Your task to perform on an android device: turn off translation in the chrome app Image 0: 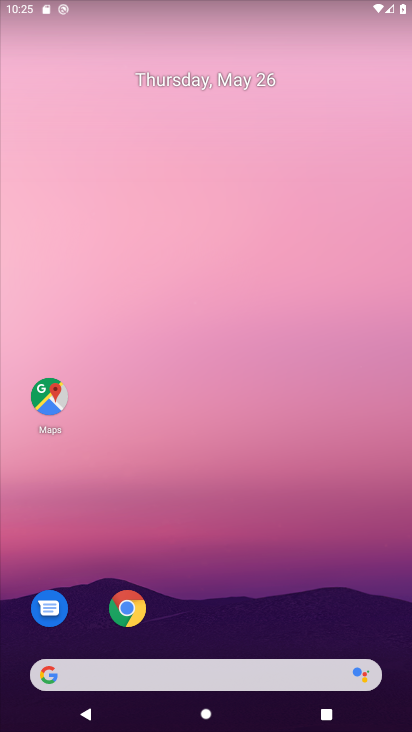
Step 0: click (133, 600)
Your task to perform on an android device: turn off translation in the chrome app Image 1: 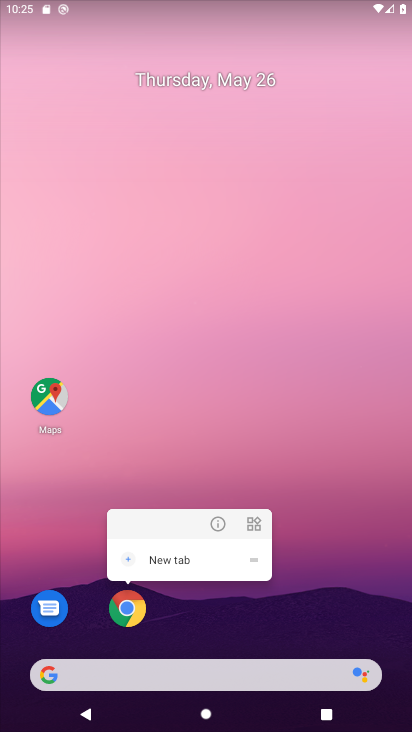
Step 1: click (131, 607)
Your task to perform on an android device: turn off translation in the chrome app Image 2: 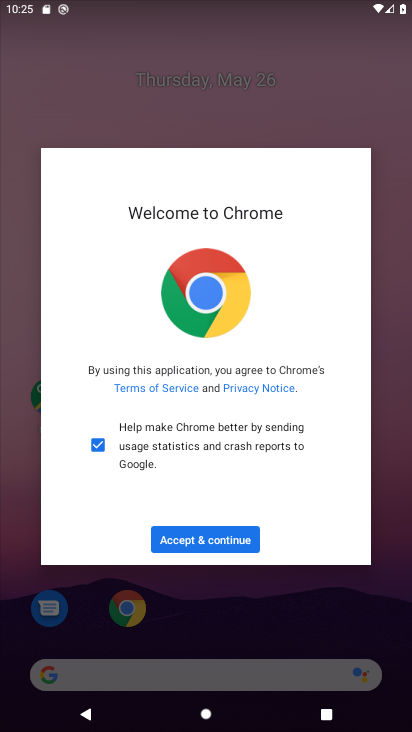
Step 2: click (237, 527)
Your task to perform on an android device: turn off translation in the chrome app Image 3: 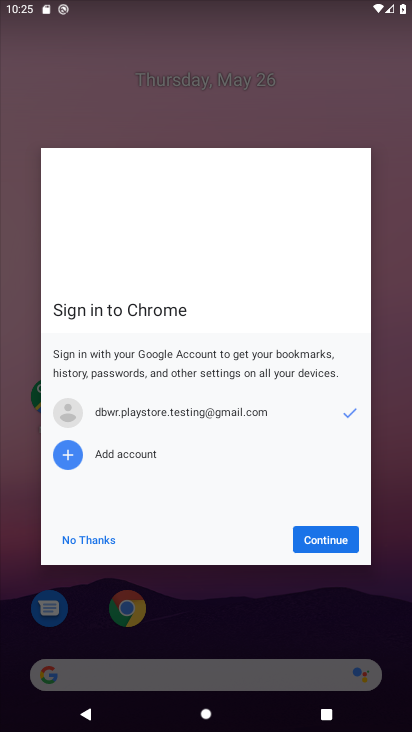
Step 3: click (308, 548)
Your task to perform on an android device: turn off translation in the chrome app Image 4: 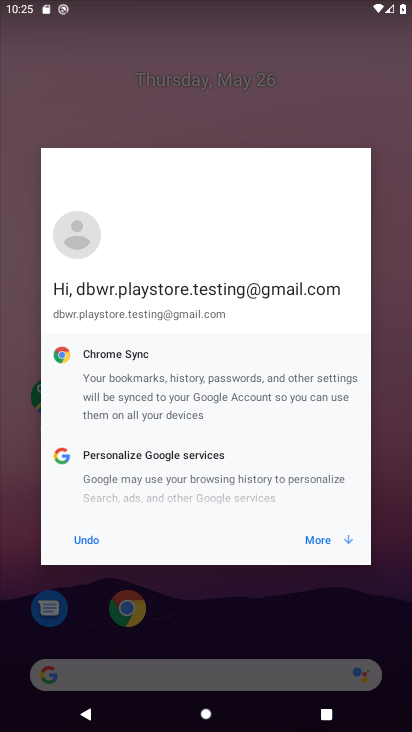
Step 4: click (316, 531)
Your task to perform on an android device: turn off translation in the chrome app Image 5: 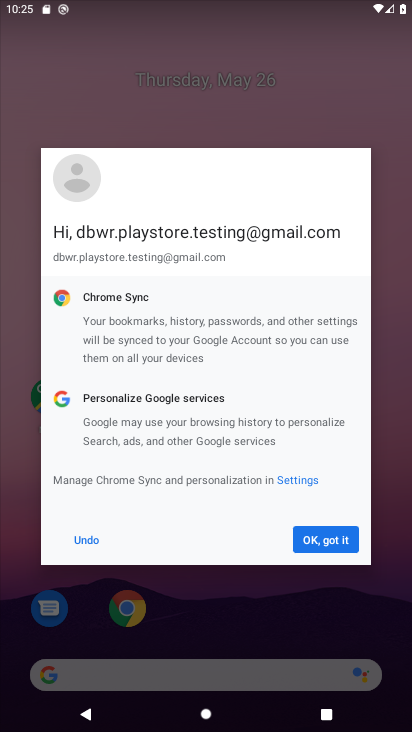
Step 5: click (316, 531)
Your task to perform on an android device: turn off translation in the chrome app Image 6: 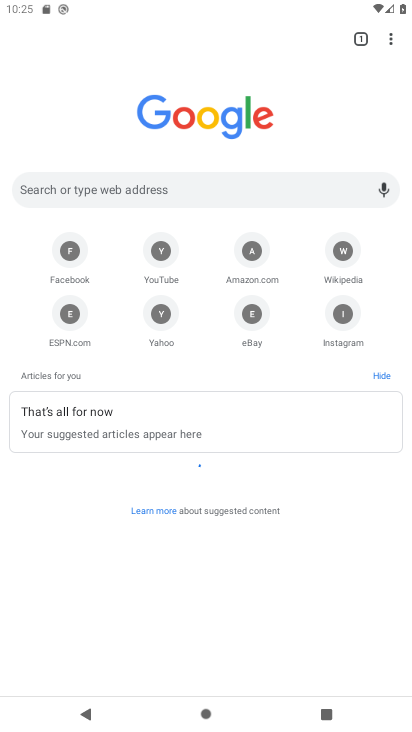
Step 6: click (389, 36)
Your task to perform on an android device: turn off translation in the chrome app Image 7: 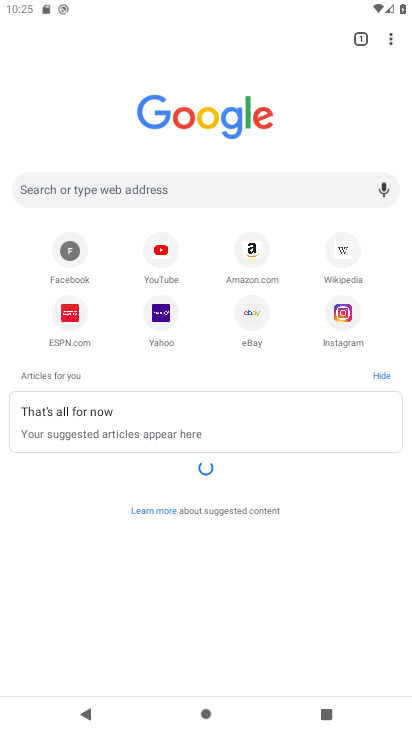
Step 7: click (392, 38)
Your task to perform on an android device: turn off translation in the chrome app Image 8: 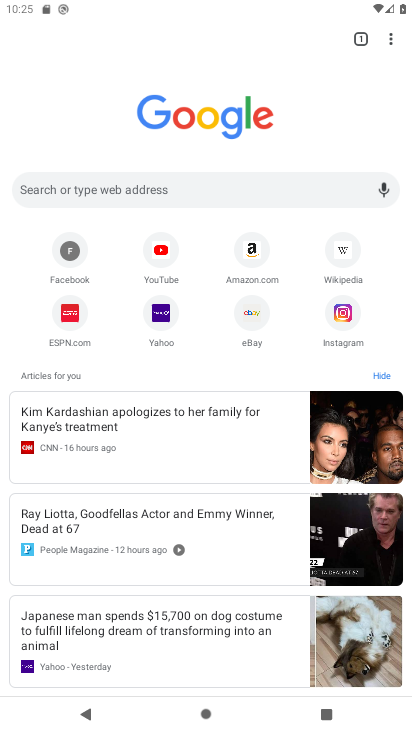
Step 8: click (392, 38)
Your task to perform on an android device: turn off translation in the chrome app Image 9: 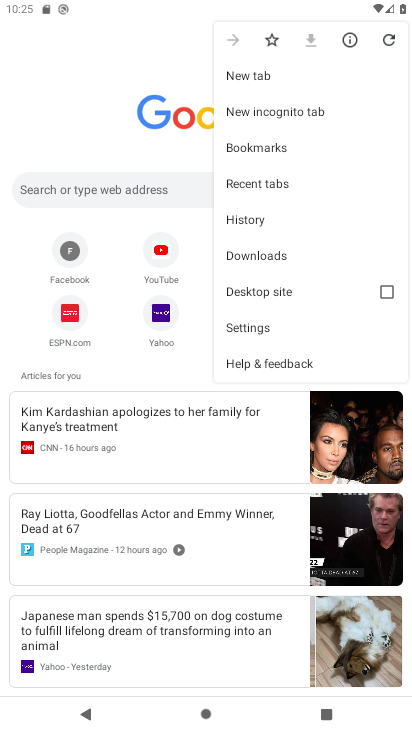
Step 9: click (246, 323)
Your task to perform on an android device: turn off translation in the chrome app Image 10: 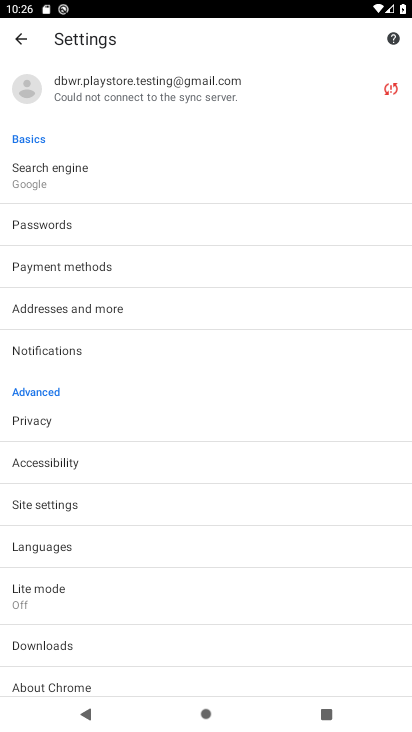
Step 10: click (78, 542)
Your task to perform on an android device: turn off translation in the chrome app Image 11: 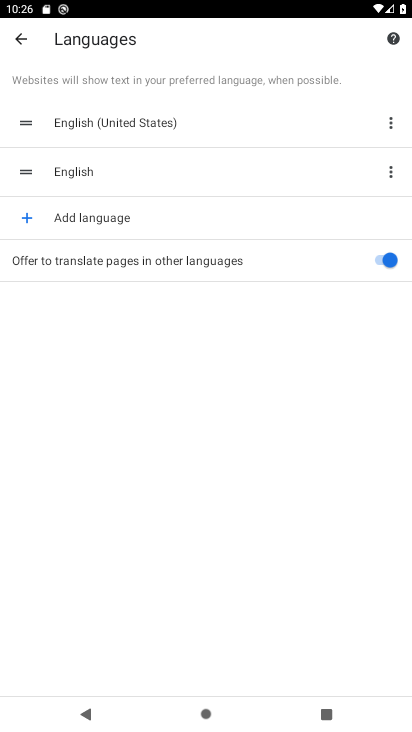
Step 11: click (378, 269)
Your task to perform on an android device: turn off translation in the chrome app Image 12: 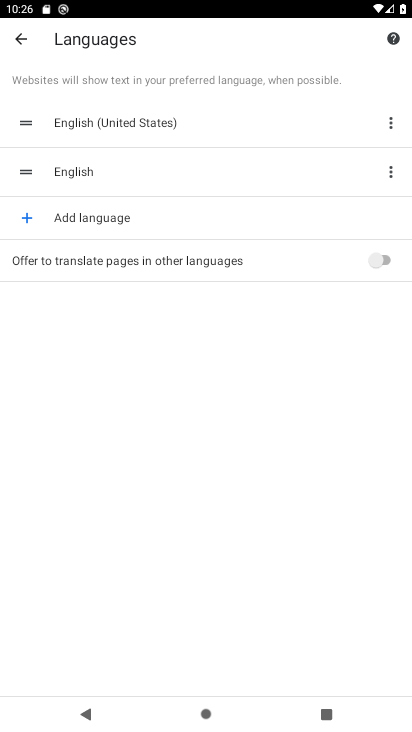
Step 12: task complete